Your task to perform on an android device: search for 2021 honda civic Image 0: 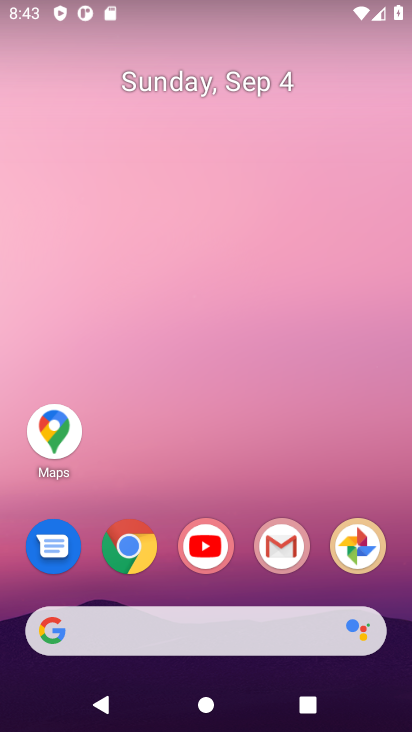
Step 0: click (130, 550)
Your task to perform on an android device: search for 2021 honda civic Image 1: 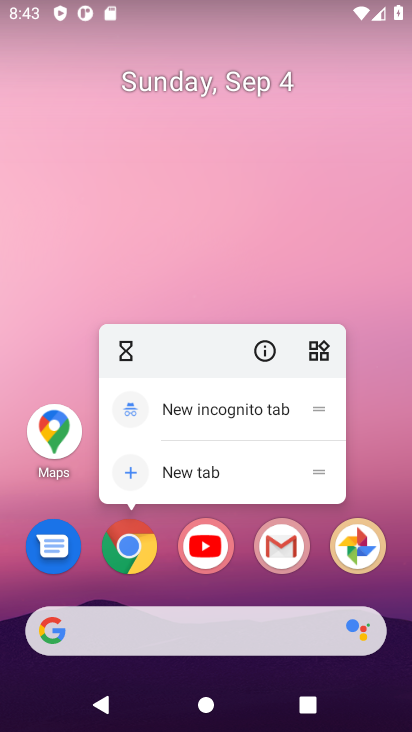
Step 1: click (130, 550)
Your task to perform on an android device: search for 2021 honda civic Image 2: 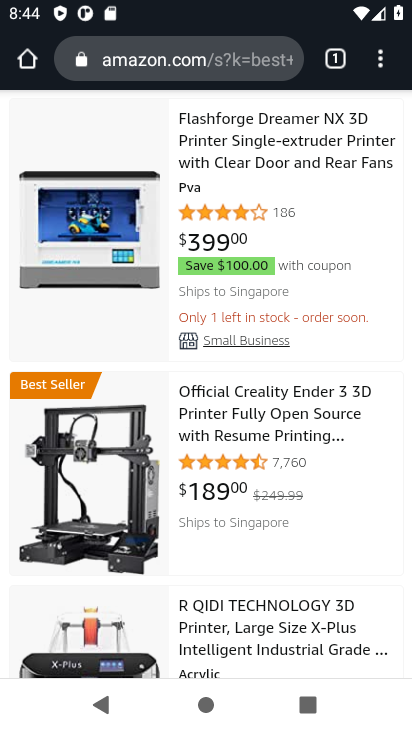
Step 2: click (217, 58)
Your task to perform on an android device: search for 2021 honda civic Image 3: 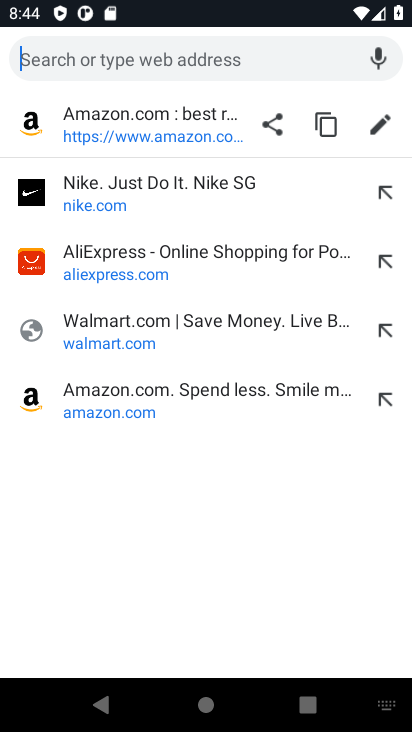
Step 3: type " 2021 honda civic"
Your task to perform on an android device: search for 2021 honda civic Image 4: 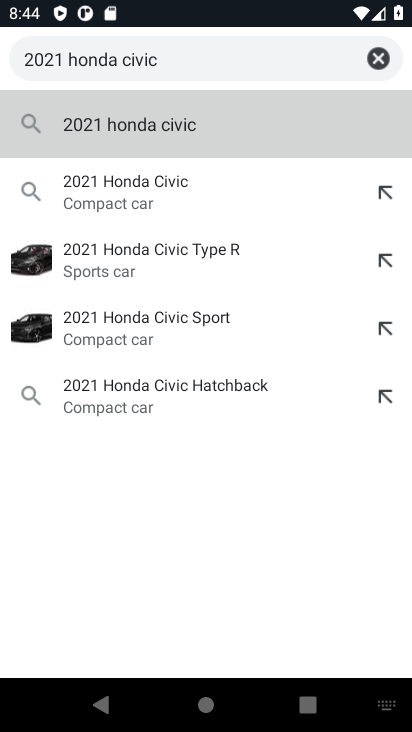
Step 4: click (107, 126)
Your task to perform on an android device: search for 2021 honda civic Image 5: 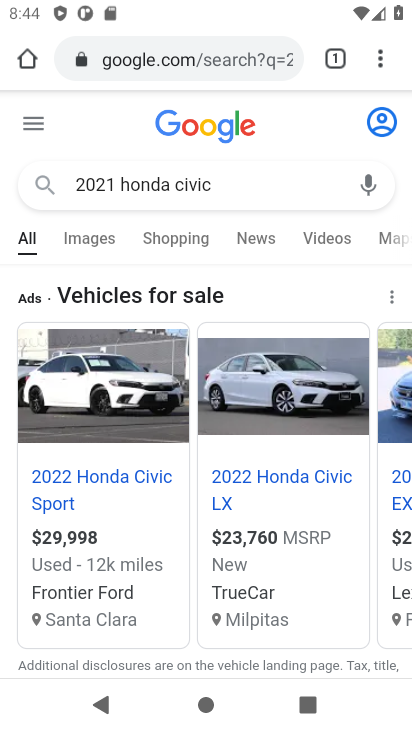
Step 5: task complete